Your task to perform on an android device: turn off location Image 0: 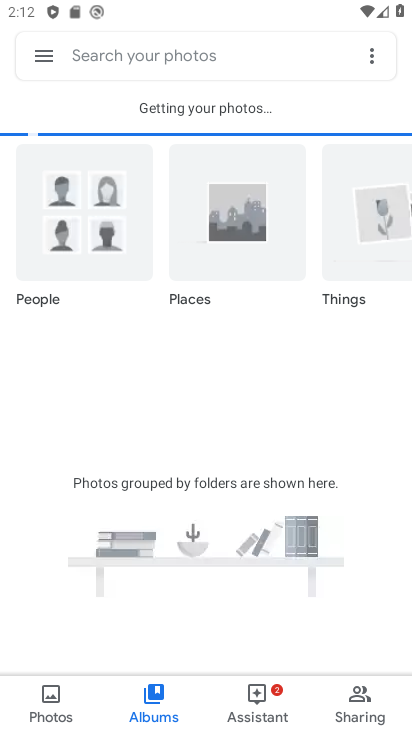
Step 0: press home button
Your task to perform on an android device: turn off location Image 1: 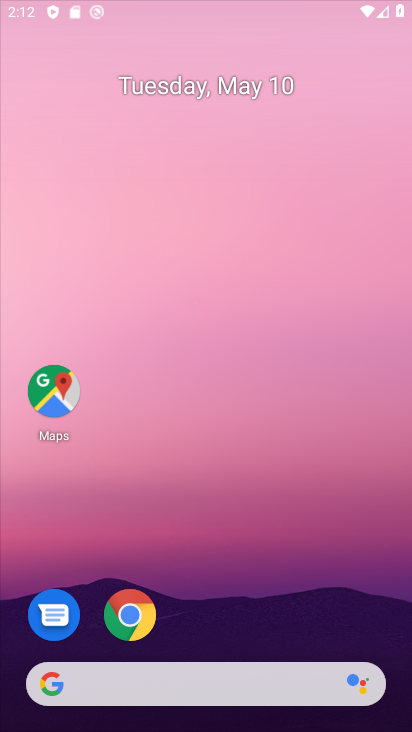
Step 1: drag from (341, 601) to (323, 70)
Your task to perform on an android device: turn off location Image 2: 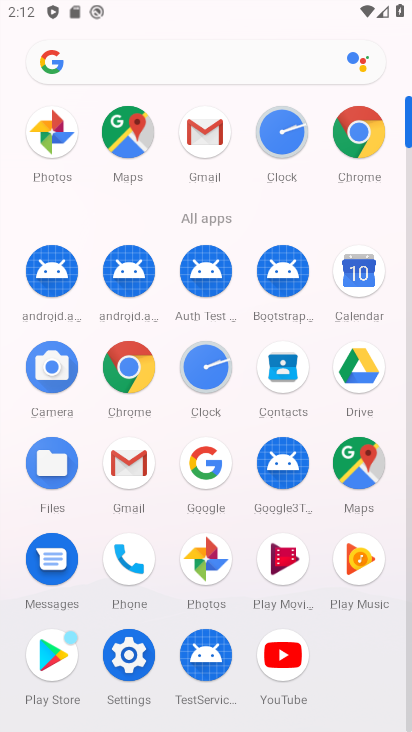
Step 2: click (140, 648)
Your task to perform on an android device: turn off location Image 3: 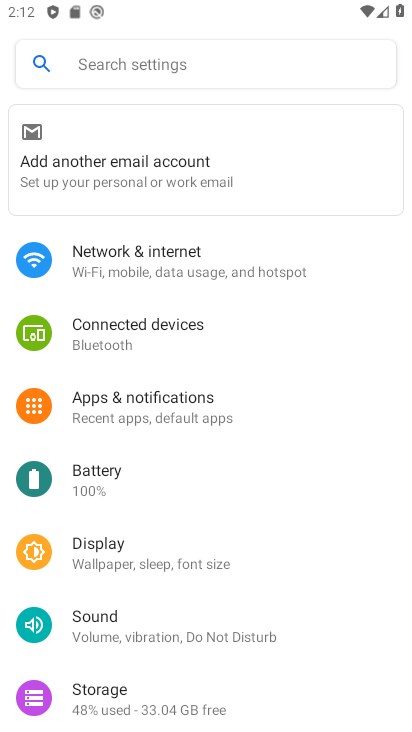
Step 3: drag from (140, 587) to (135, 166)
Your task to perform on an android device: turn off location Image 4: 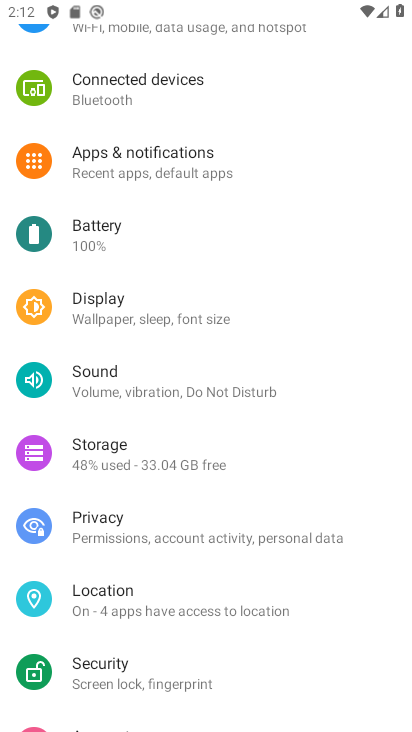
Step 4: drag from (158, 594) to (160, 383)
Your task to perform on an android device: turn off location Image 5: 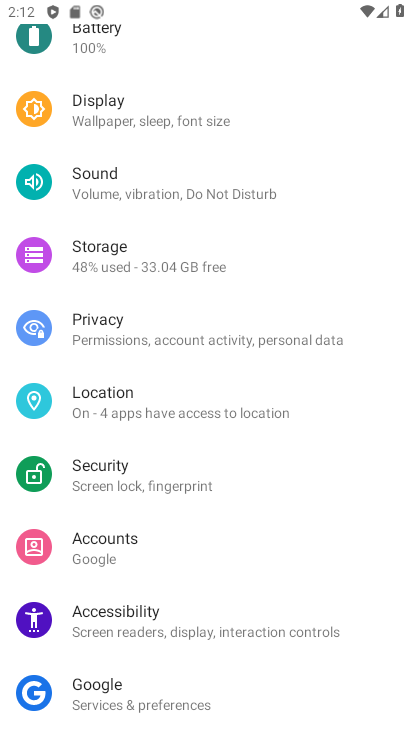
Step 5: click (121, 389)
Your task to perform on an android device: turn off location Image 6: 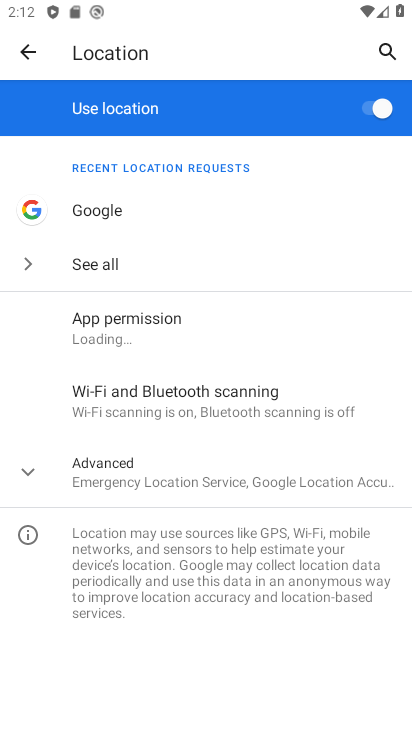
Step 6: click (348, 106)
Your task to perform on an android device: turn off location Image 7: 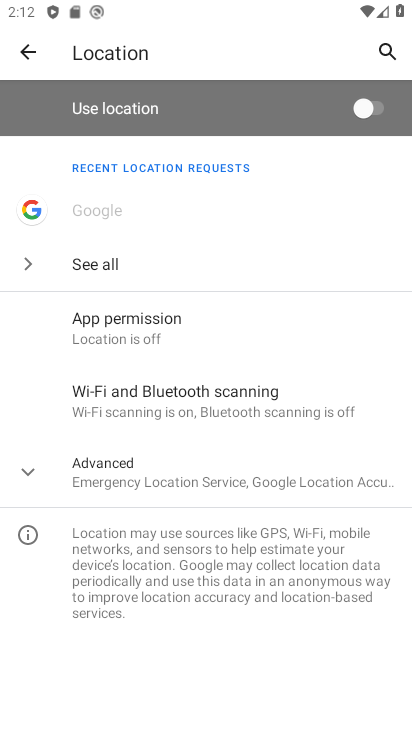
Step 7: task complete